Your task to perform on an android device: find which apps use the phone's location Image 0: 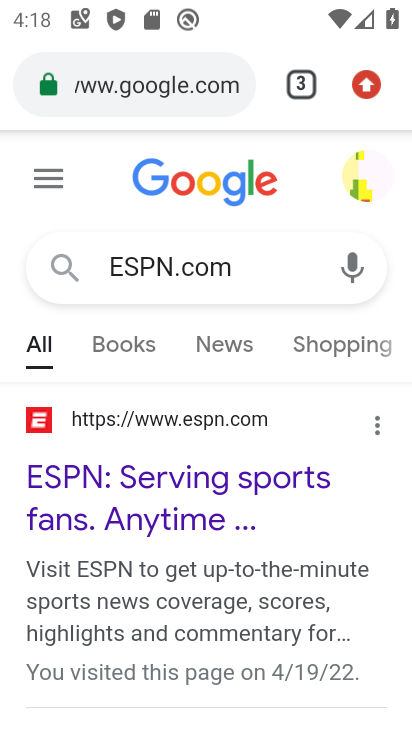
Step 0: press home button
Your task to perform on an android device: find which apps use the phone's location Image 1: 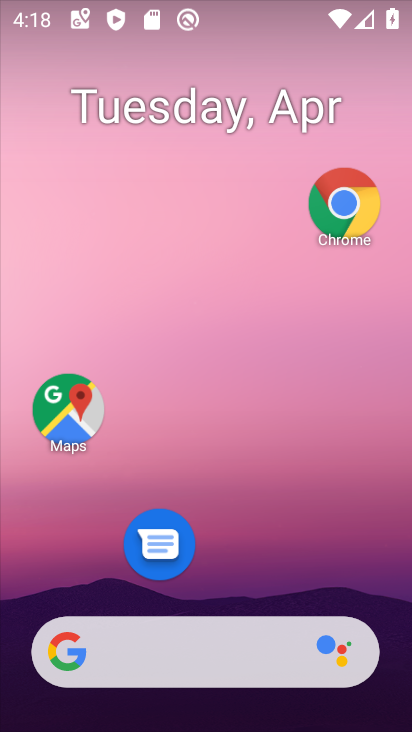
Step 1: drag from (256, 571) to (262, 0)
Your task to perform on an android device: find which apps use the phone's location Image 2: 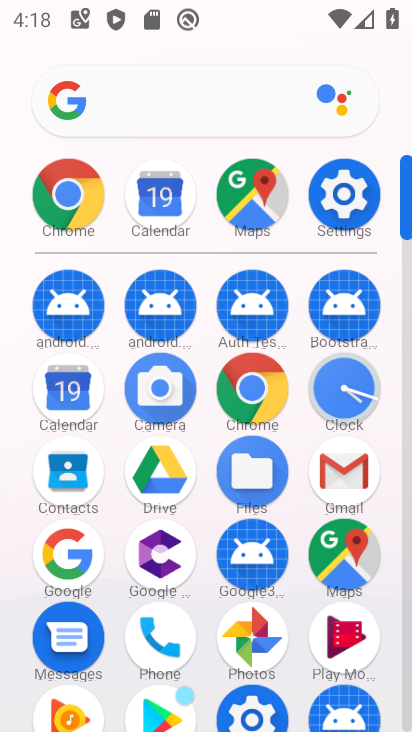
Step 2: click (339, 222)
Your task to perform on an android device: find which apps use the phone's location Image 3: 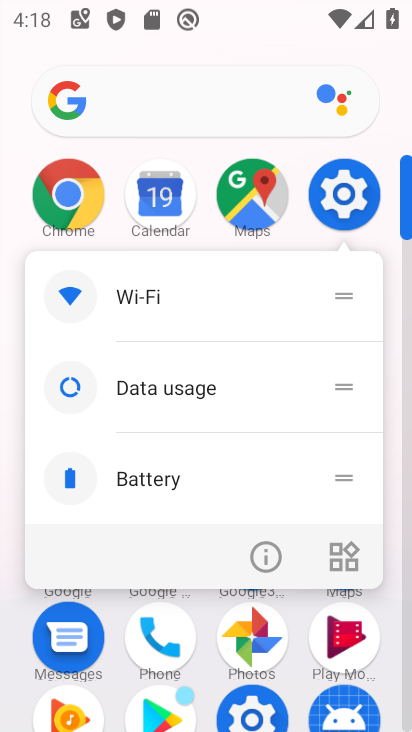
Step 3: click (349, 203)
Your task to perform on an android device: find which apps use the phone's location Image 4: 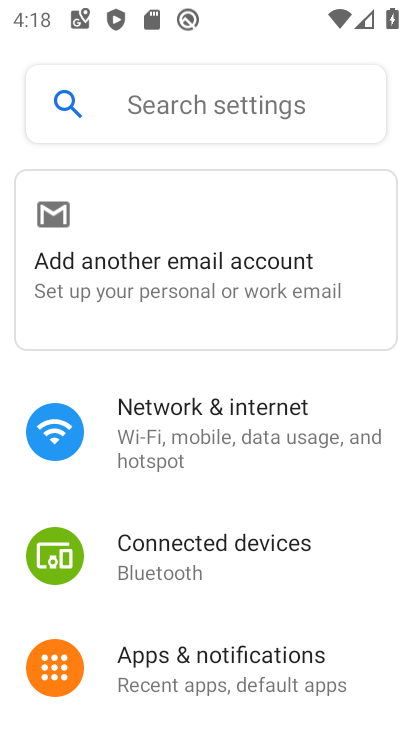
Step 4: drag from (174, 647) to (263, 267)
Your task to perform on an android device: find which apps use the phone's location Image 5: 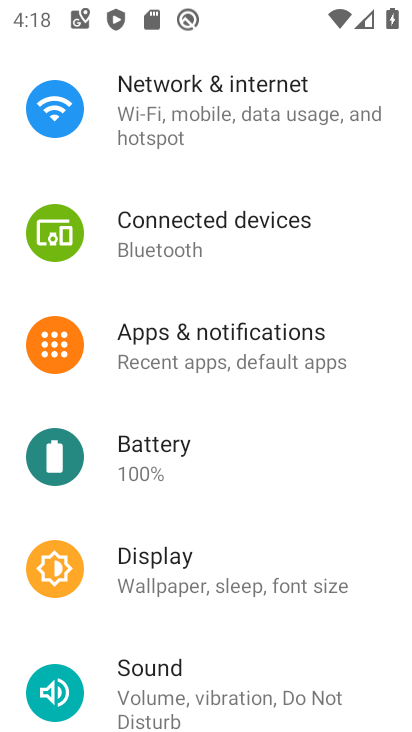
Step 5: drag from (178, 582) to (243, 205)
Your task to perform on an android device: find which apps use the phone's location Image 6: 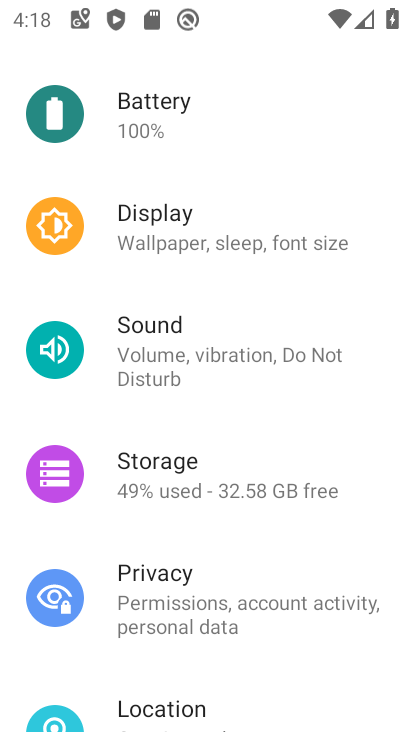
Step 6: click (172, 694)
Your task to perform on an android device: find which apps use the phone's location Image 7: 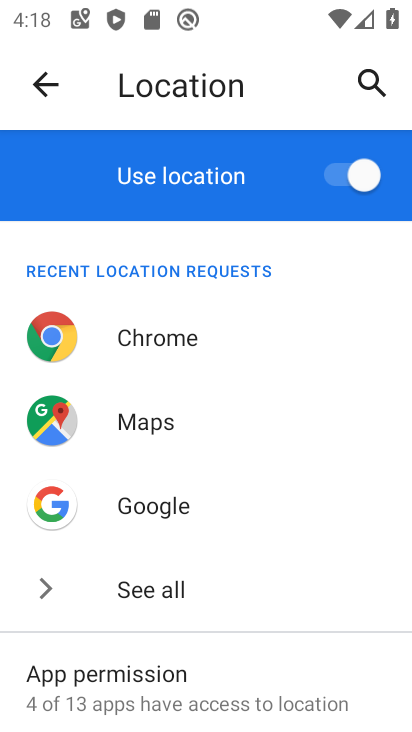
Step 7: drag from (168, 530) to (222, 150)
Your task to perform on an android device: find which apps use the phone's location Image 8: 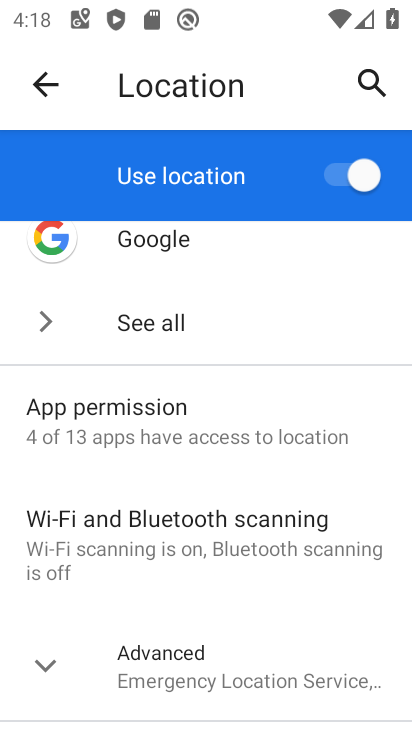
Step 8: click (168, 440)
Your task to perform on an android device: find which apps use the phone's location Image 9: 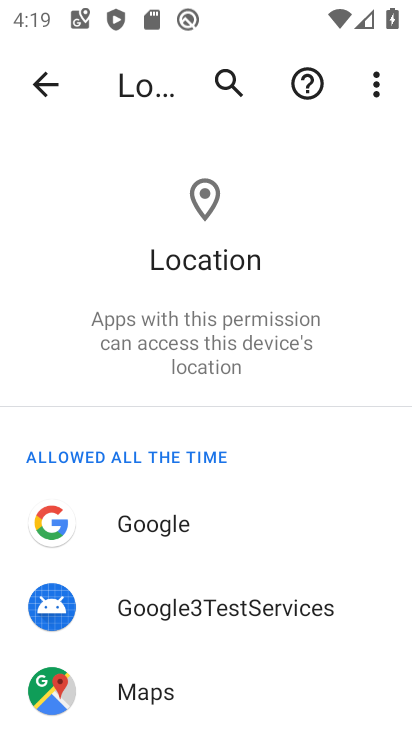
Step 9: task complete